Your task to perform on an android device: open a bookmark in the chrome app Image 0: 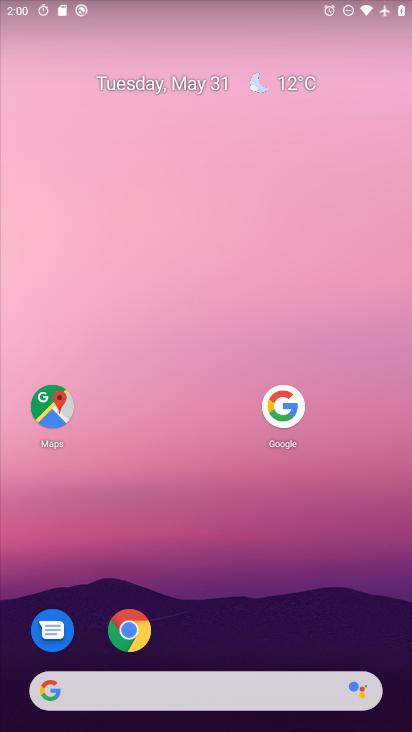
Step 0: press home button
Your task to perform on an android device: open a bookmark in the chrome app Image 1: 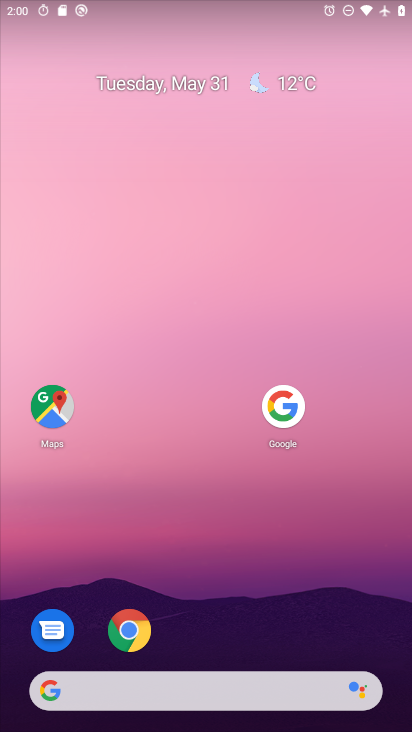
Step 1: click (129, 633)
Your task to perform on an android device: open a bookmark in the chrome app Image 2: 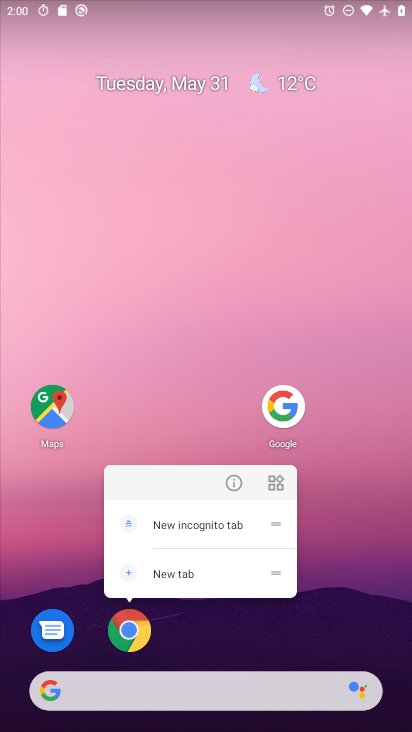
Step 2: click (130, 635)
Your task to perform on an android device: open a bookmark in the chrome app Image 3: 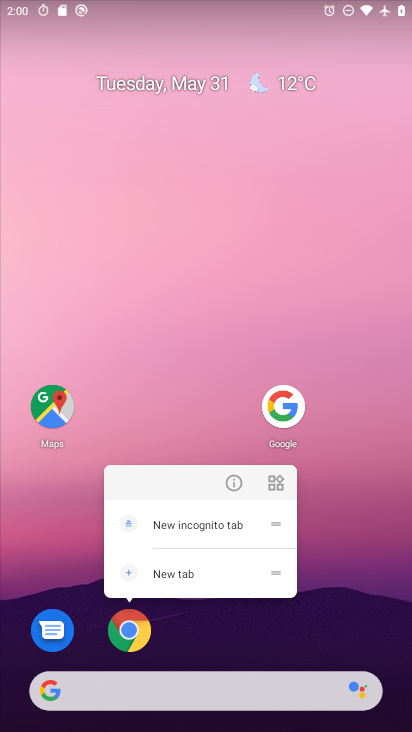
Step 3: click (125, 641)
Your task to perform on an android device: open a bookmark in the chrome app Image 4: 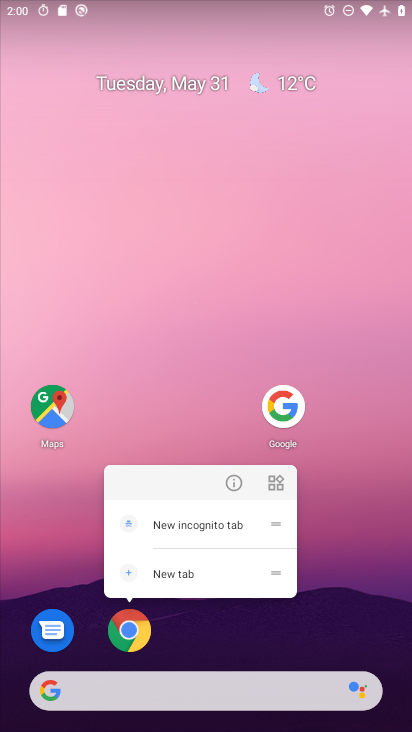
Step 4: click (129, 637)
Your task to perform on an android device: open a bookmark in the chrome app Image 5: 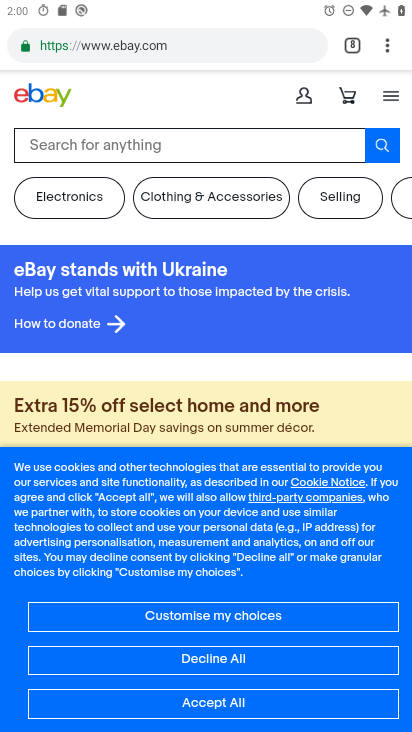
Step 5: task complete